Your task to perform on an android device: change keyboard looks Image 0: 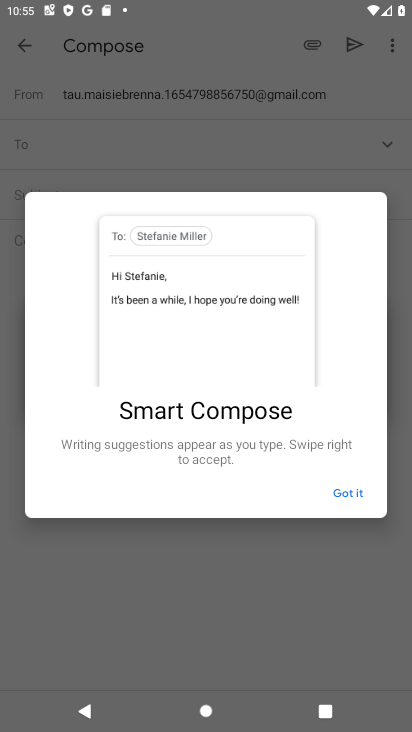
Step 0: press home button
Your task to perform on an android device: change keyboard looks Image 1: 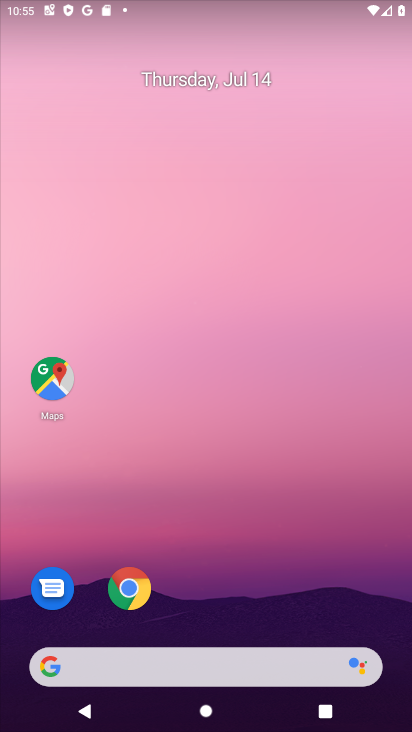
Step 1: drag from (166, 667) to (290, 150)
Your task to perform on an android device: change keyboard looks Image 2: 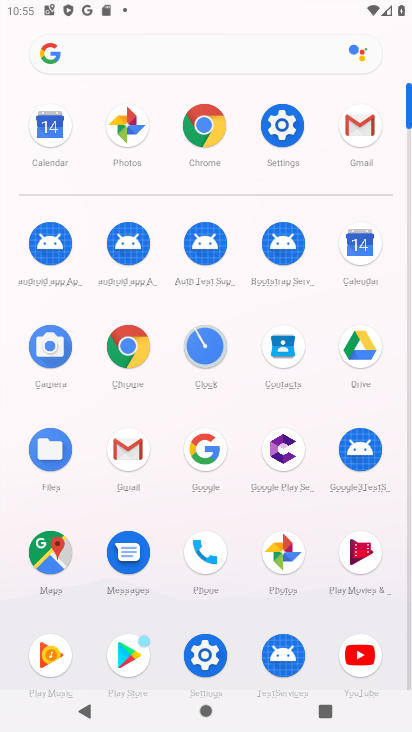
Step 2: click (281, 127)
Your task to perform on an android device: change keyboard looks Image 3: 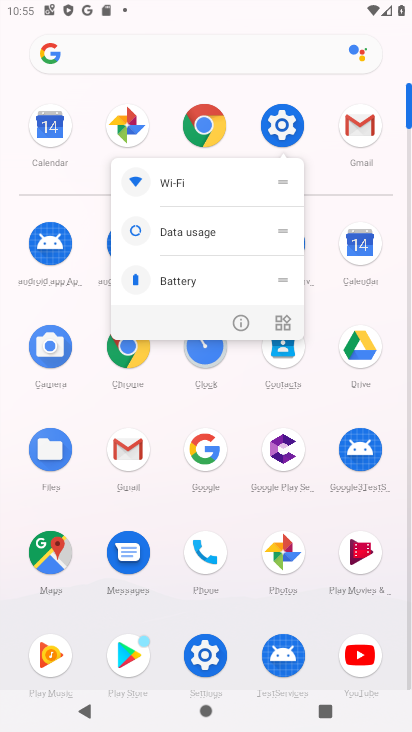
Step 3: click (281, 127)
Your task to perform on an android device: change keyboard looks Image 4: 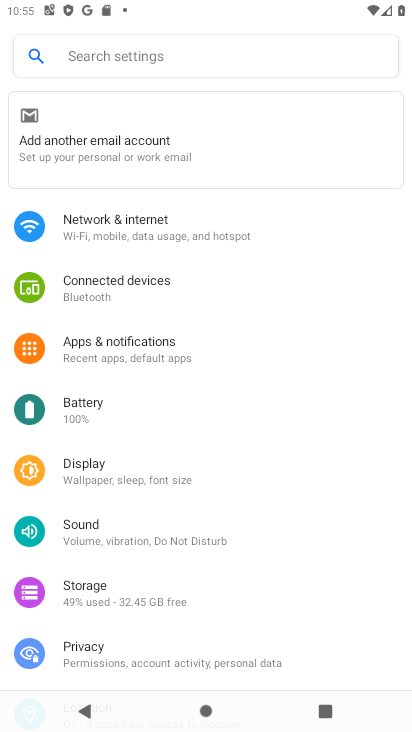
Step 4: drag from (287, 642) to (377, 93)
Your task to perform on an android device: change keyboard looks Image 5: 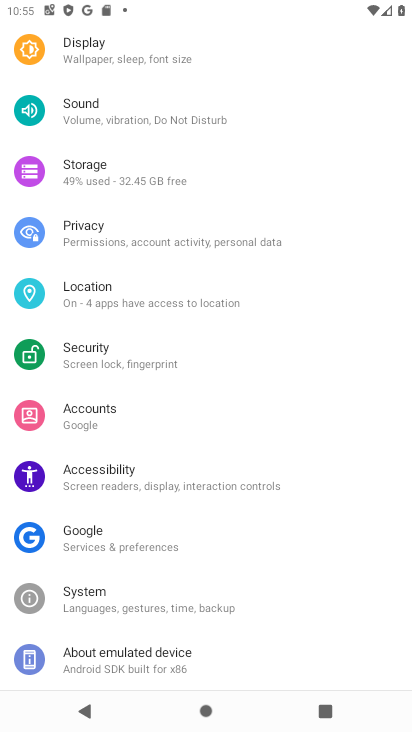
Step 5: click (158, 603)
Your task to perform on an android device: change keyboard looks Image 6: 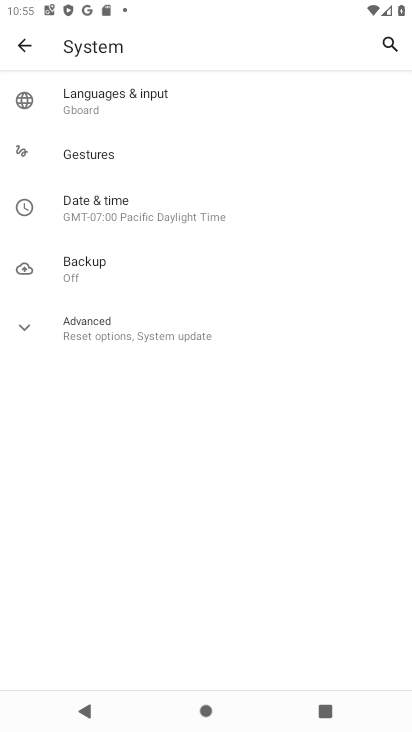
Step 6: click (107, 98)
Your task to perform on an android device: change keyboard looks Image 7: 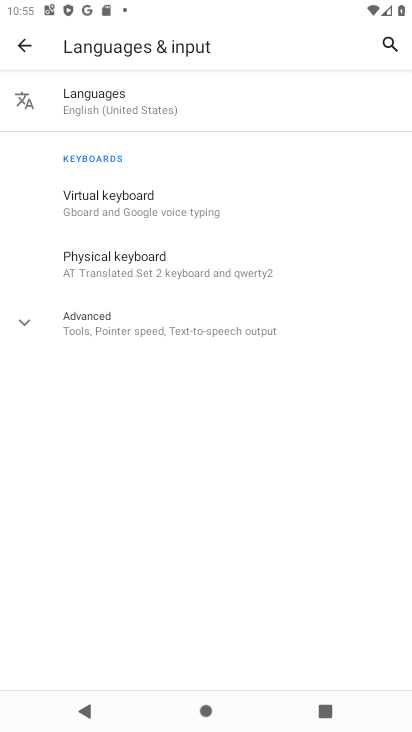
Step 7: click (121, 190)
Your task to perform on an android device: change keyboard looks Image 8: 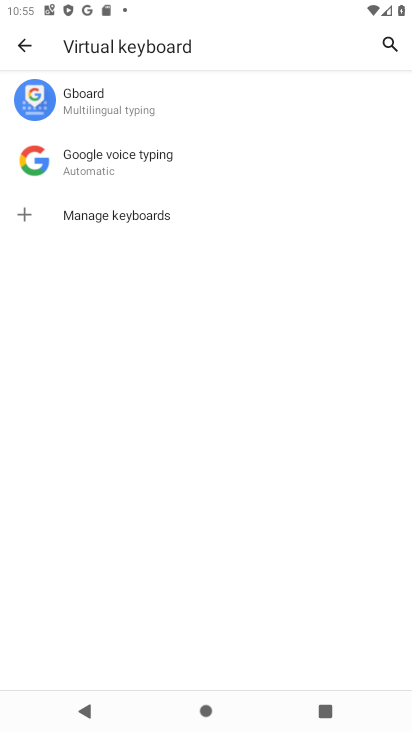
Step 8: click (101, 108)
Your task to perform on an android device: change keyboard looks Image 9: 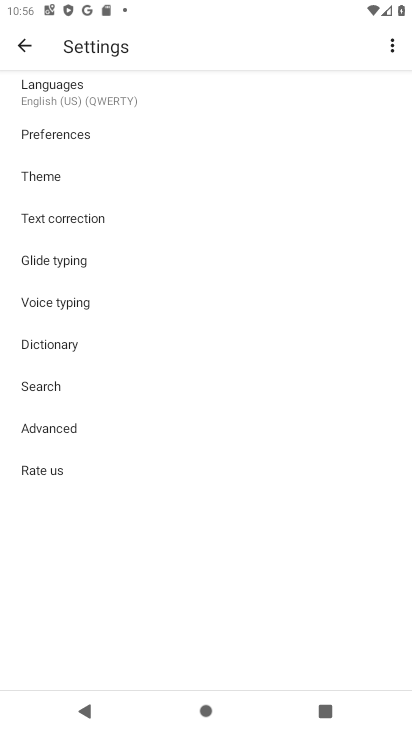
Step 9: click (72, 183)
Your task to perform on an android device: change keyboard looks Image 10: 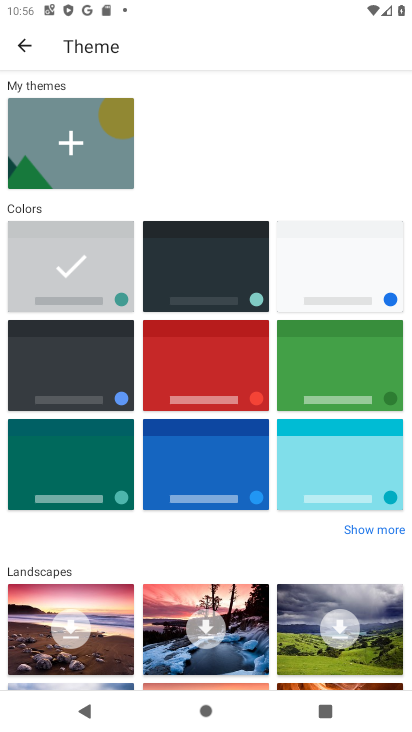
Step 10: click (235, 447)
Your task to perform on an android device: change keyboard looks Image 11: 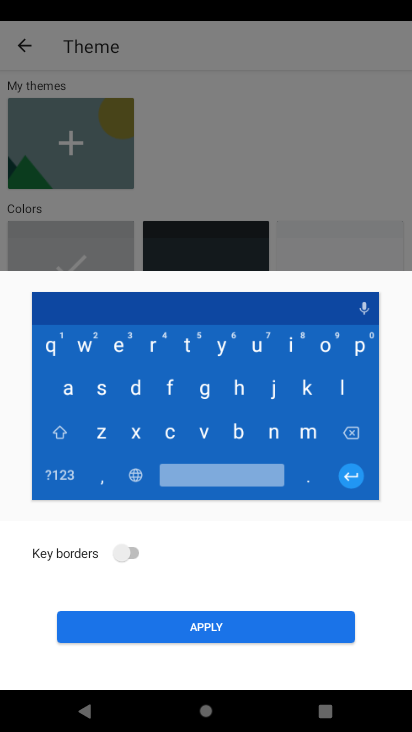
Step 11: click (221, 635)
Your task to perform on an android device: change keyboard looks Image 12: 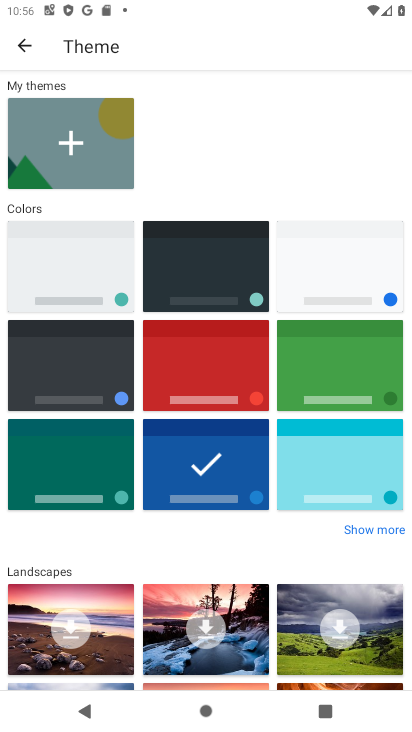
Step 12: task complete